Your task to perform on an android device: Show me the alarms in the clock app Image 0: 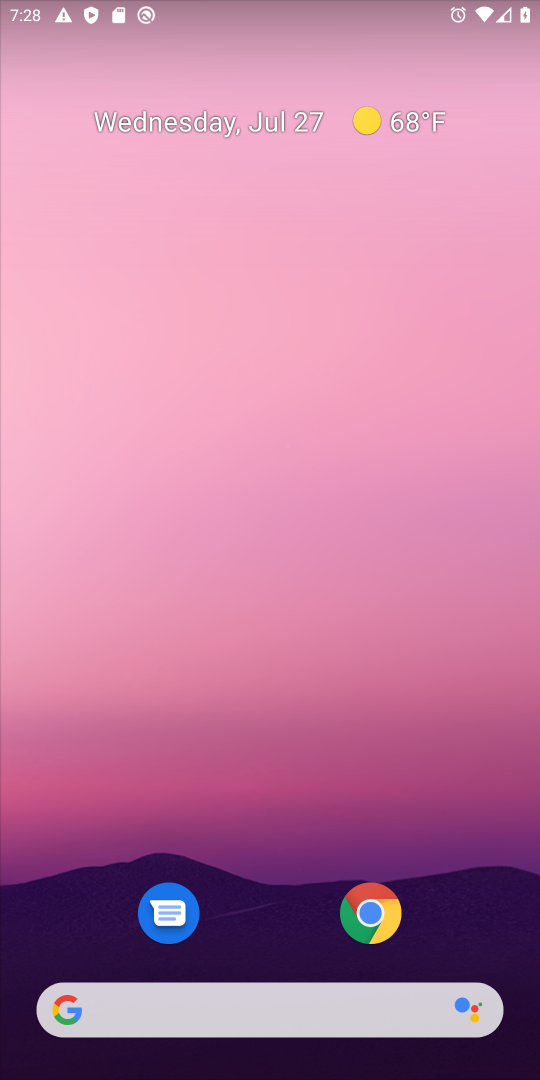
Step 0: drag from (216, 1066) to (320, 144)
Your task to perform on an android device: Show me the alarms in the clock app Image 1: 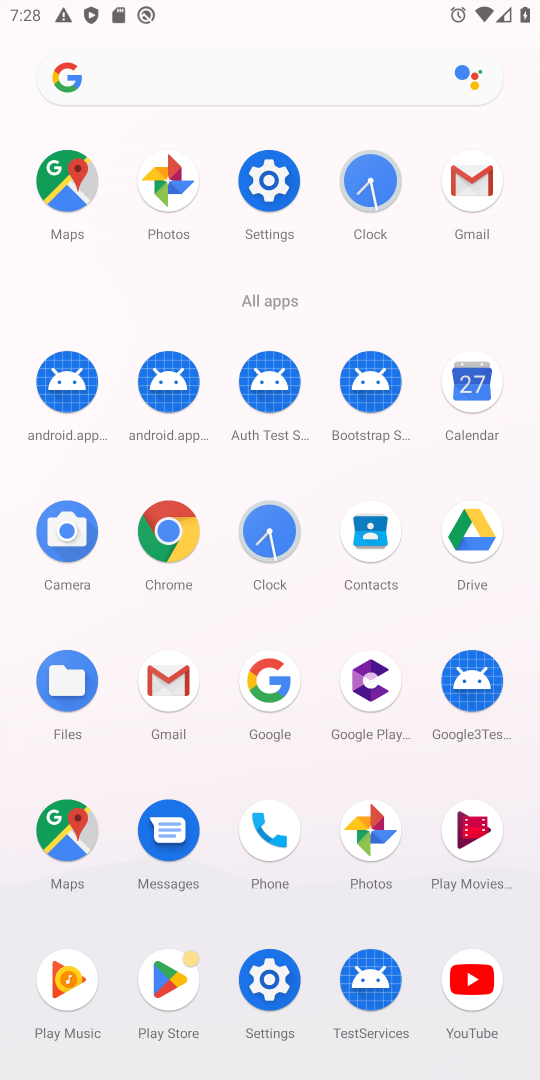
Step 1: click (251, 550)
Your task to perform on an android device: Show me the alarms in the clock app Image 2: 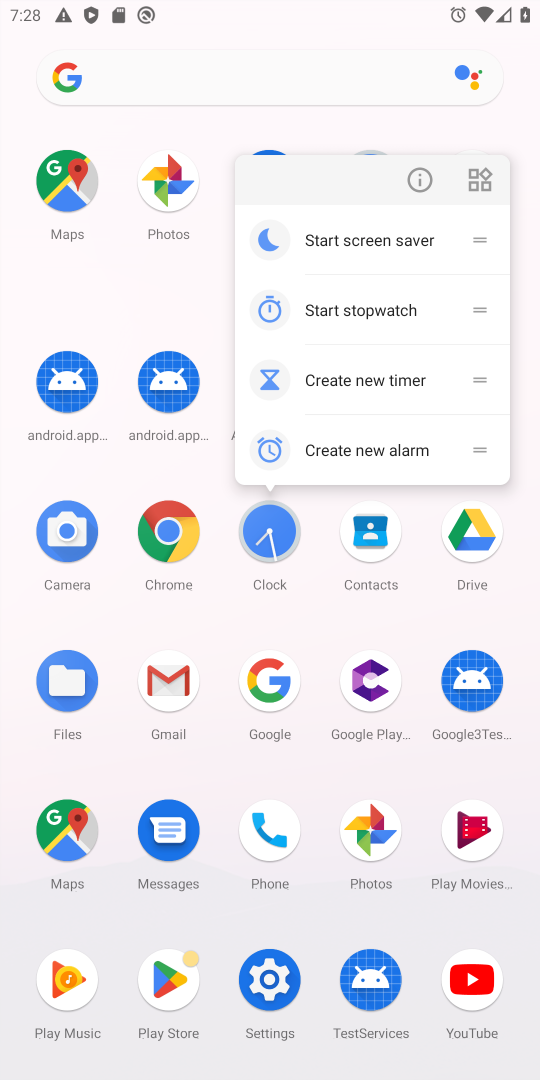
Step 2: click (251, 550)
Your task to perform on an android device: Show me the alarms in the clock app Image 3: 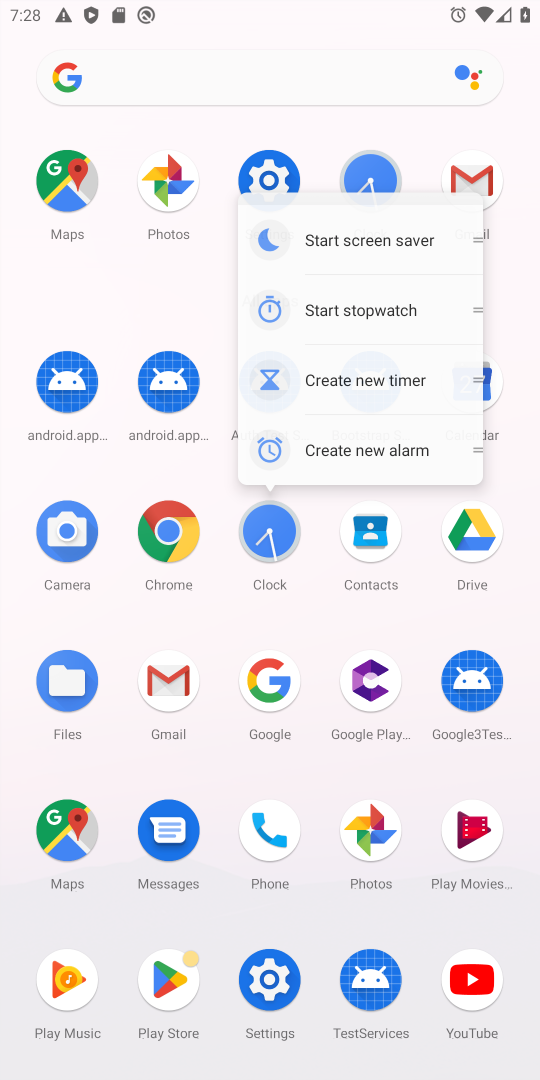
Step 3: click (251, 550)
Your task to perform on an android device: Show me the alarms in the clock app Image 4: 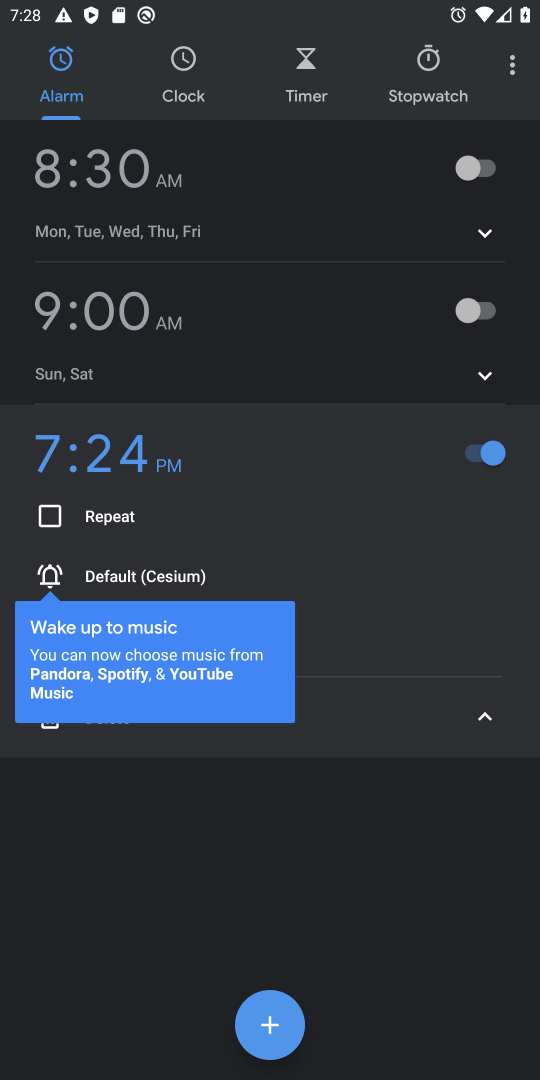
Step 4: task complete